Your task to perform on an android device: Go to display settings Image 0: 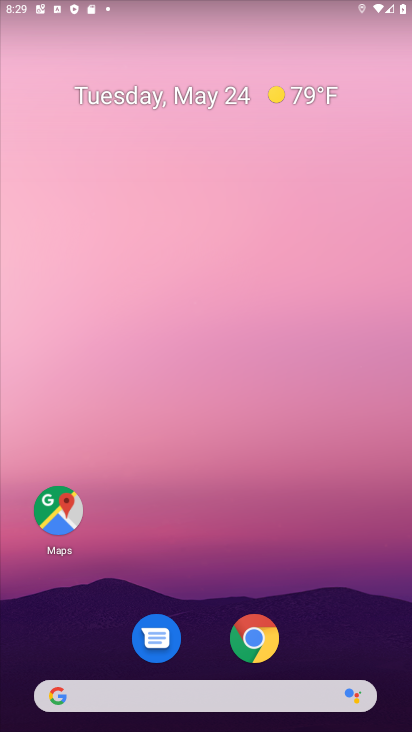
Step 0: drag from (306, 707) to (312, 165)
Your task to perform on an android device: Go to display settings Image 1: 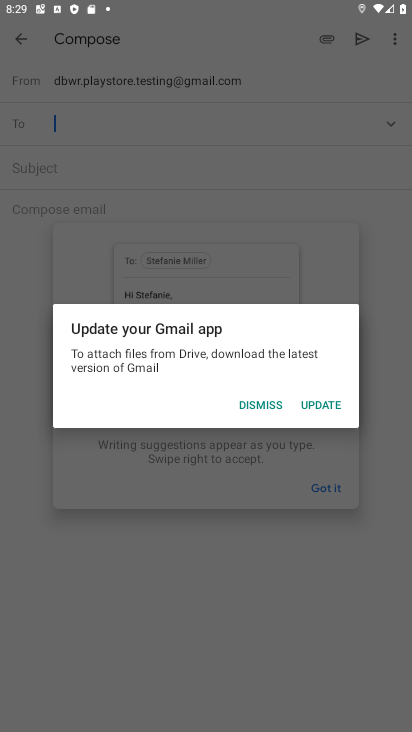
Step 1: press home button
Your task to perform on an android device: Go to display settings Image 2: 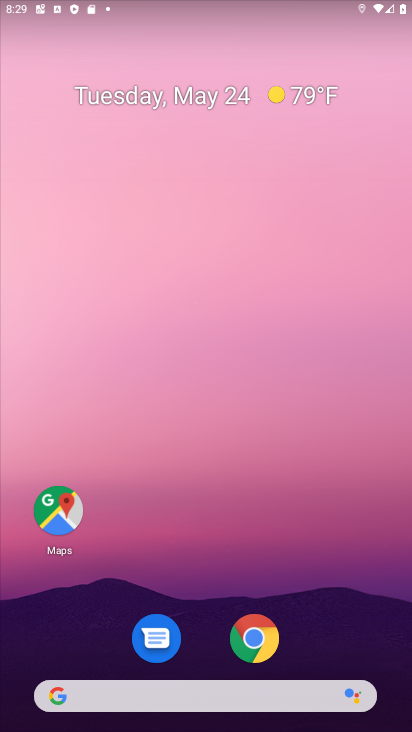
Step 2: drag from (224, 704) to (176, 79)
Your task to perform on an android device: Go to display settings Image 3: 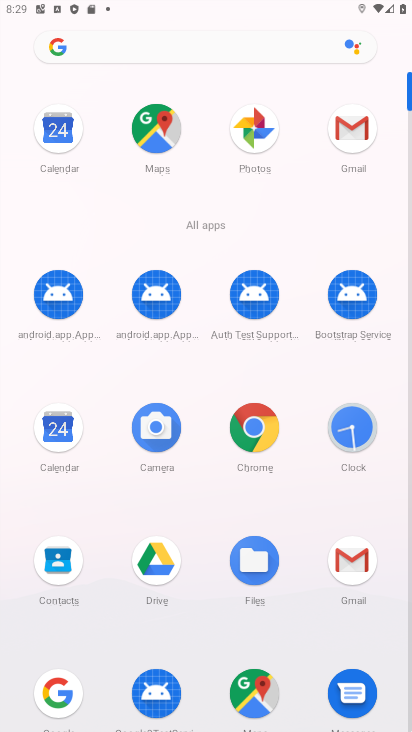
Step 3: drag from (151, 558) to (174, 47)
Your task to perform on an android device: Go to display settings Image 4: 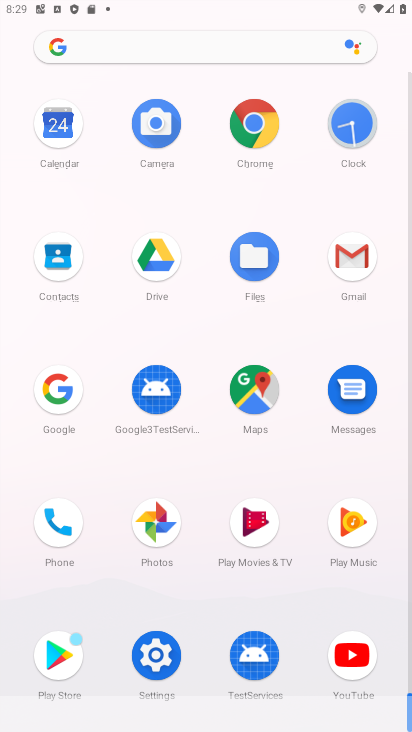
Step 4: click (165, 646)
Your task to perform on an android device: Go to display settings Image 5: 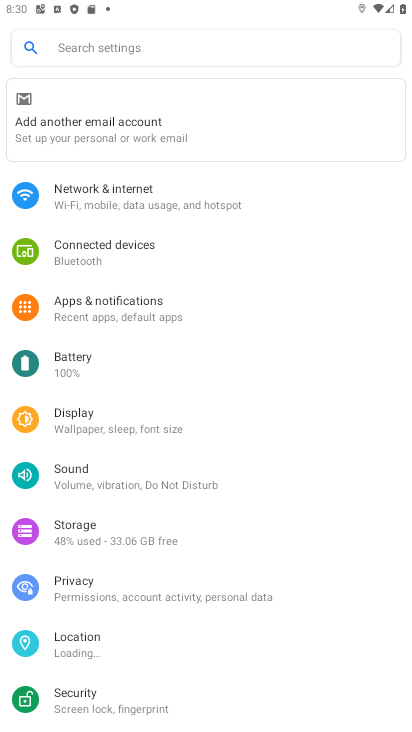
Step 5: click (132, 421)
Your task to perform on an android device: Go to display settings Image 6: 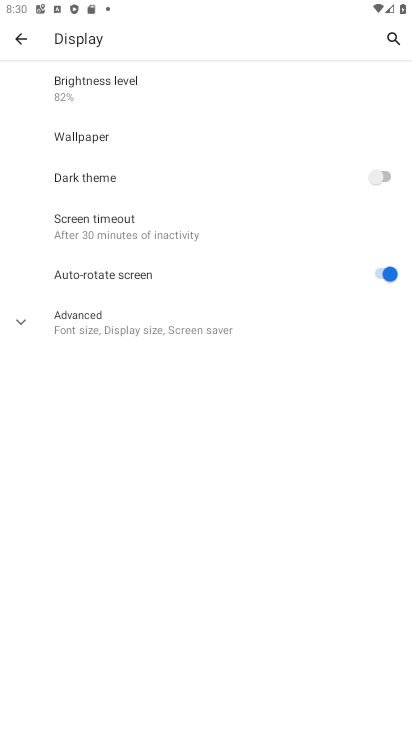
Step 6: task complete